Your task to perform on an android device: read, delete, or share a saved page in the chrome app Image 0: 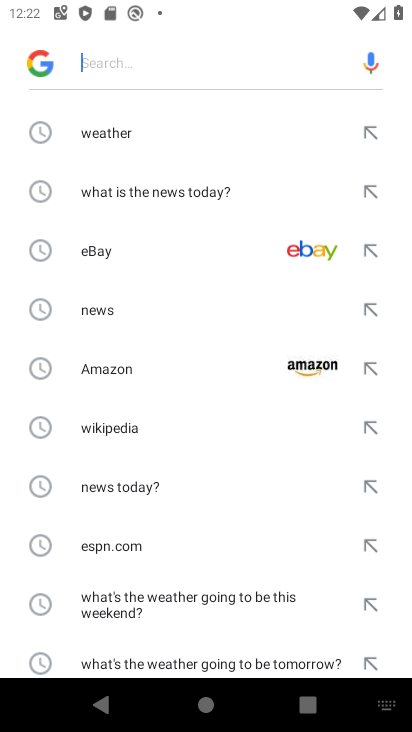
Step 0: press home button
Your task to perform on an android device: read, delete, or share a saved page in the chrome app Image 1: 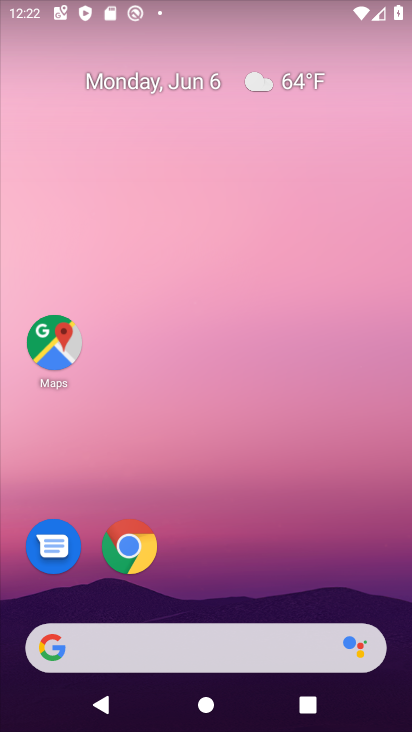
Step 1: click (125, 543)
Your task to perform on an android device: read, delete, or share a saved page in the chrome app Image 2: 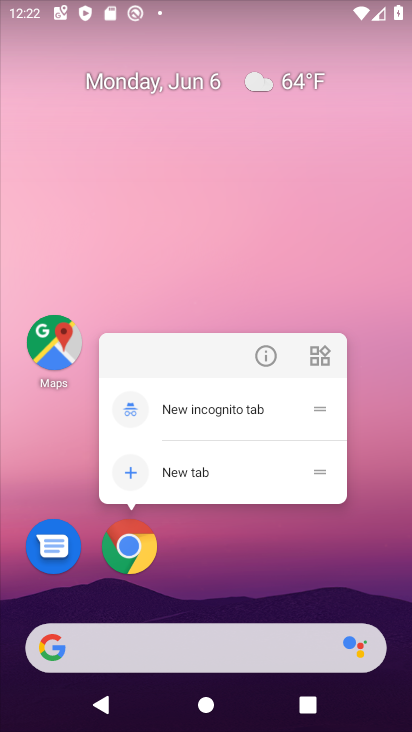
Step 2: click (133, 538)
Your task to perform on an android device: read, delete, or share a saved page in the chrome app Image 3: 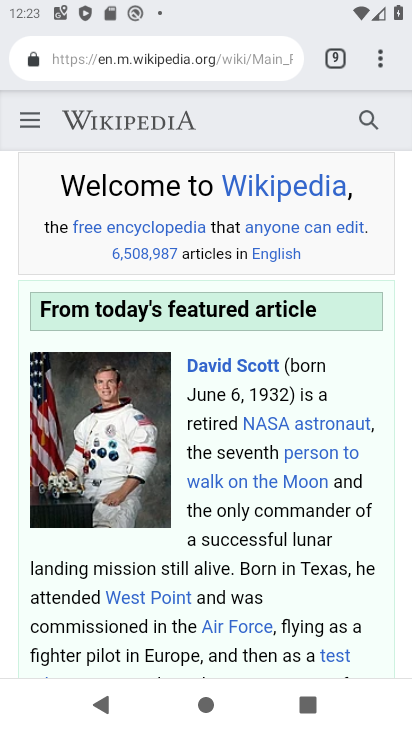
Step 3: click (386, 68)
Your task to perform on an android device: read, delete, or share a saved page in the chrome app Image 4: 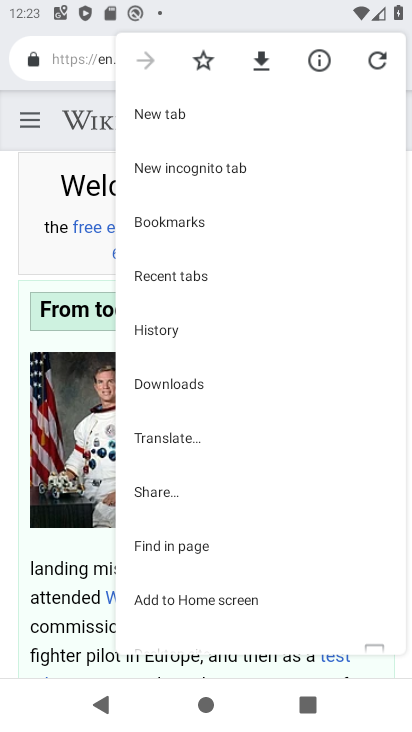
Step 4: click (156, 385)
Your task to perform on an android device: read, delete, or share a saved page in the chrome app Image 5: 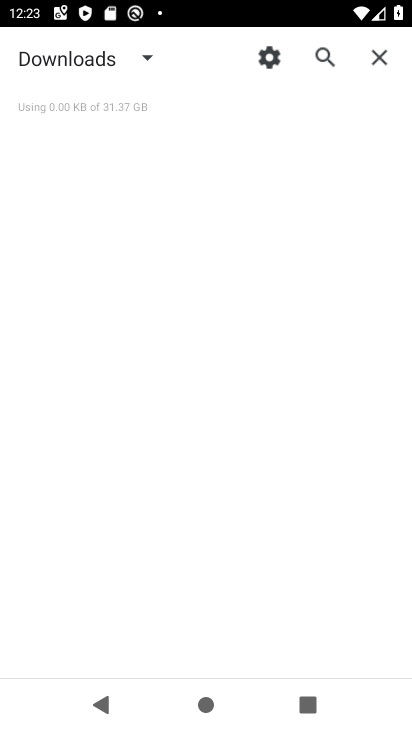
Step 5: click (135, 64)
Your task to perform on an android device: read, delete, or share a saved page in the chrome app Image 6: 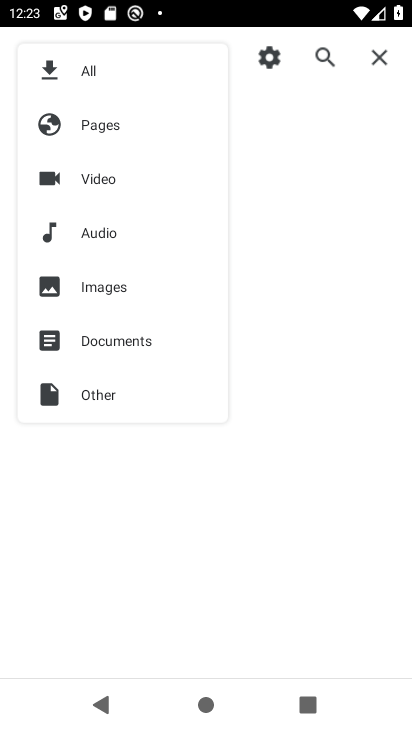
Step 6: click (98, 133)
Your task to perform on an android device: read, delete, or share a saved page in the chrome app Image 7: 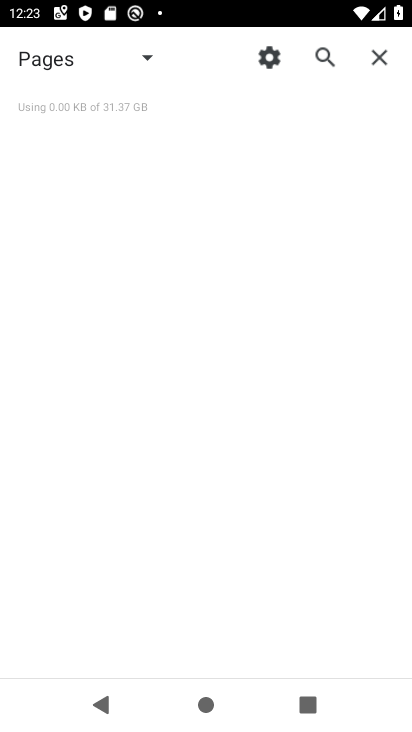
Step 7: task complete